Your task to perform on an android device: What is the recent news? Image 0: 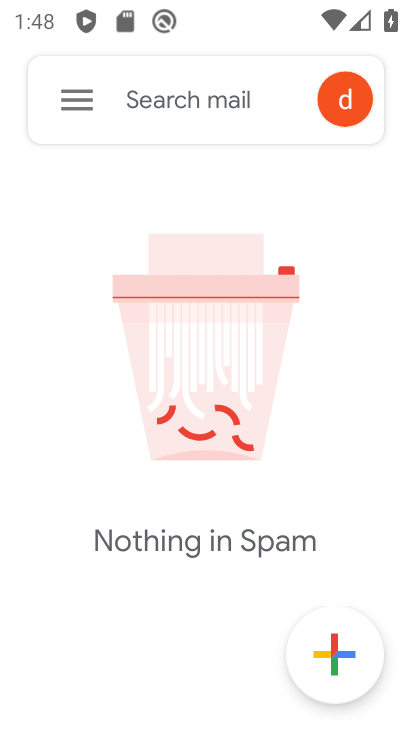
Step 0: press home button
Your task to perform on an android device: What is the recent news? Image 1: 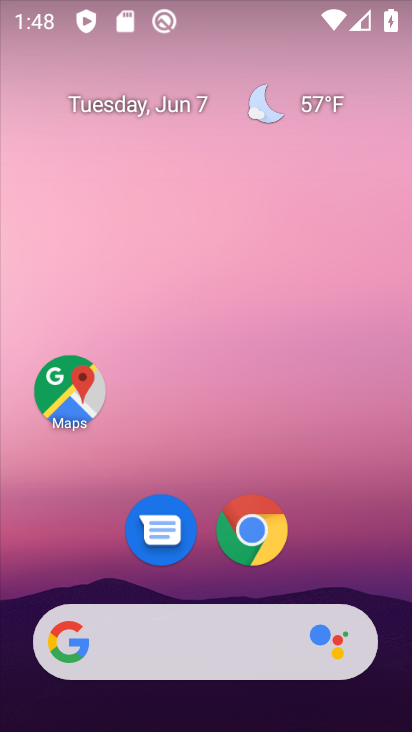
Step 1: drag from (301, 453) to (274, 84)
Your task to perform on an android device: What is the recent news? Image 2: 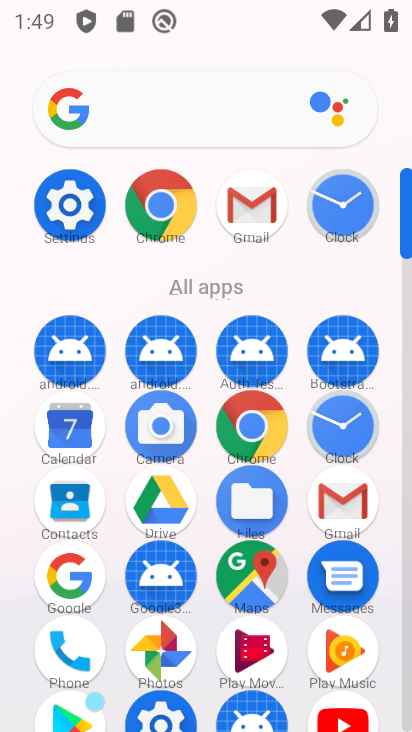
Step 2: click (72, 584)
Your task to perform on an android device: What is the recent news? Image 3: 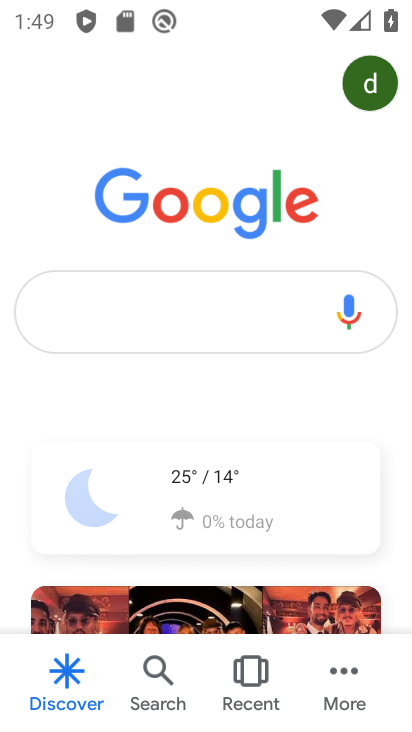
Step 3: click (191, 307)
Your task to perform on an android device: What is the recent news? Image 4: 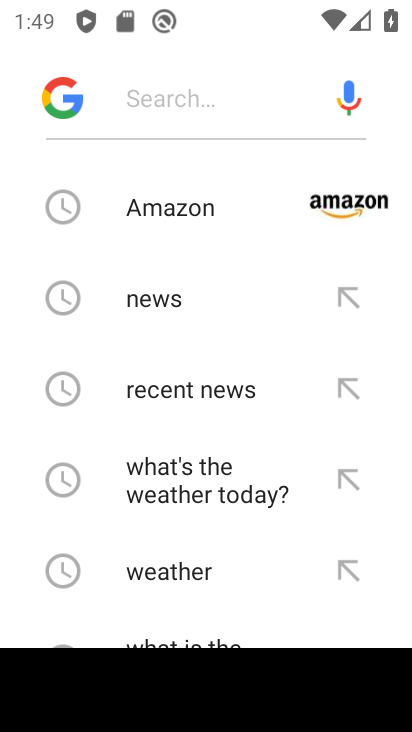
Step 4: type "recent news"
Your task to perform on an android device: What is the recent news? Image 5: 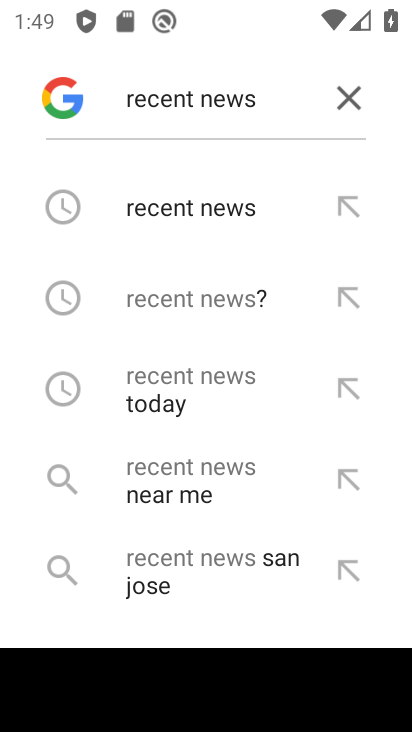
Step 5: task complete